Your task to perform on an android device: make emails show in primary in the gmail app Image 0: 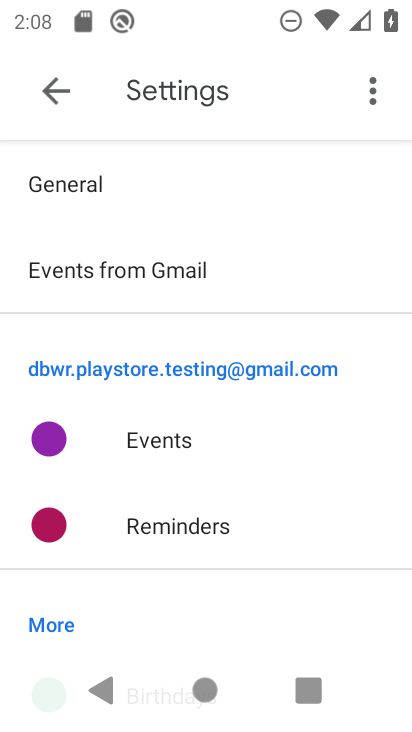
Step 0: press home button
Your task to perform on an android device: make emails show in primary in the gmail app Image 1: 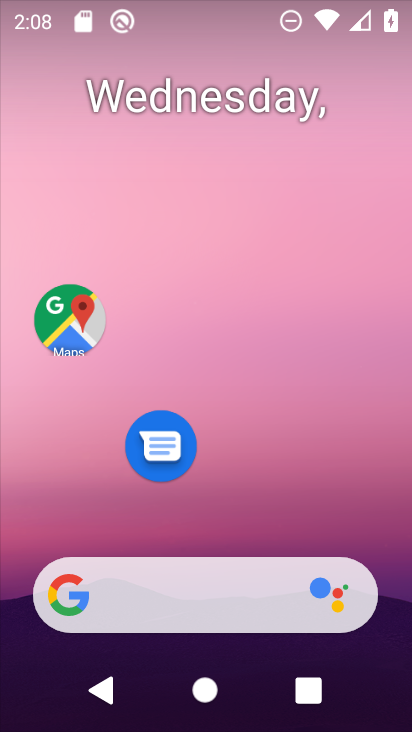
Step 1: drag from (310, 478) to (237, 16)
Your task to perform on an android device: make emails show in primary in the gmail app Image 2: 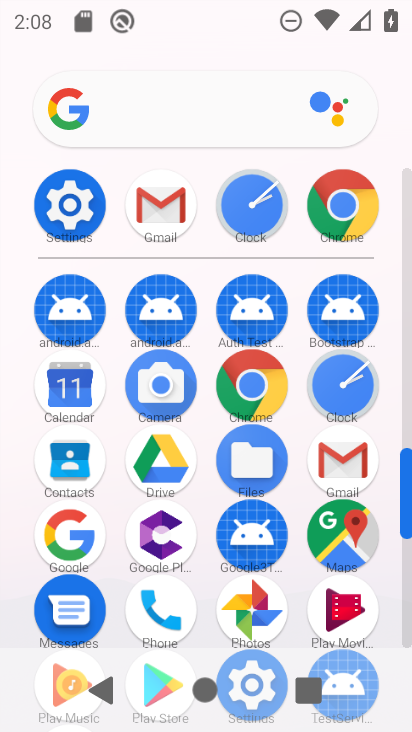
Step 2: click (341, 468)
Your task to perform on an android device: make emails show in primary in the gmail app Image 3: 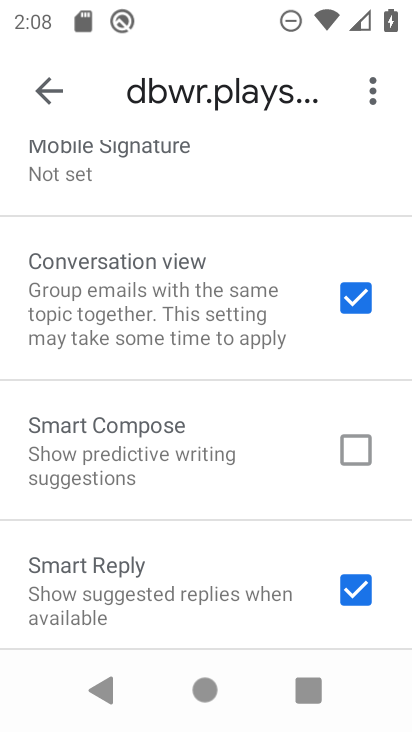
Step 3: click (61, 92)
Your task to perform on an android device: make emails show in primary in the gmail app Image 4: 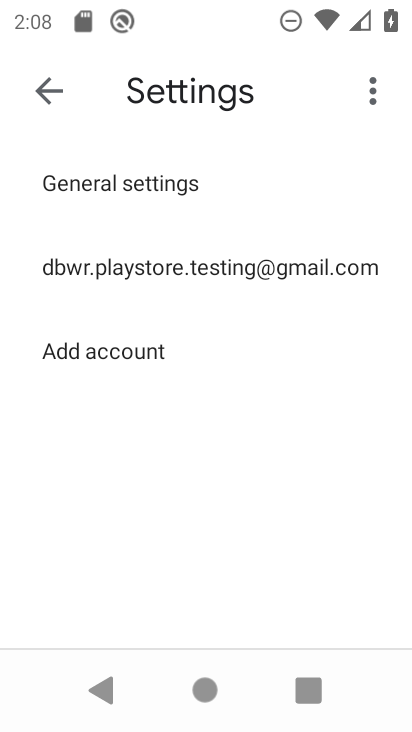
Step 4: click (61, 92)
Your task to perform on an android device: make emails show in primary in the gmail app Image 5: 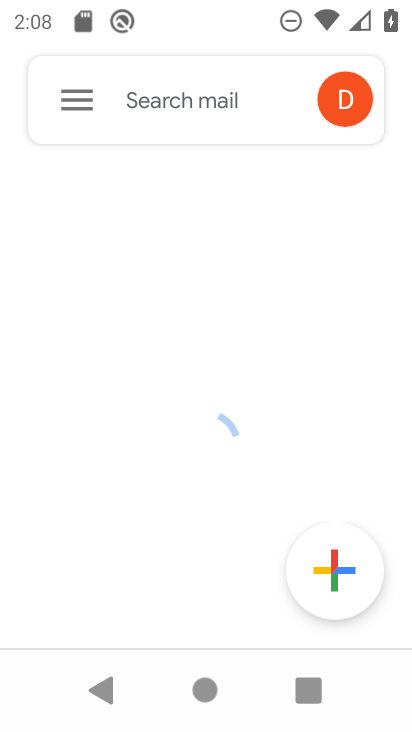
Step 5: click (61, 122)
Your task to perform on an android device: make emails show in primary in the gmail app Image 6: 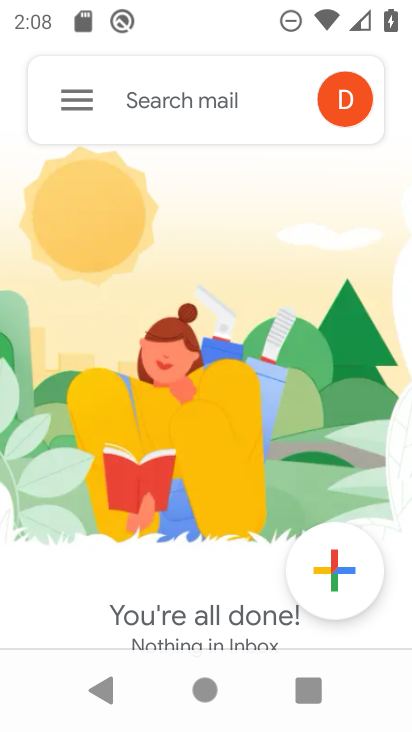
Step 6: click (75, 120)
Your task to perform on an android device: make emails show in primary in the gmail app Image 7: 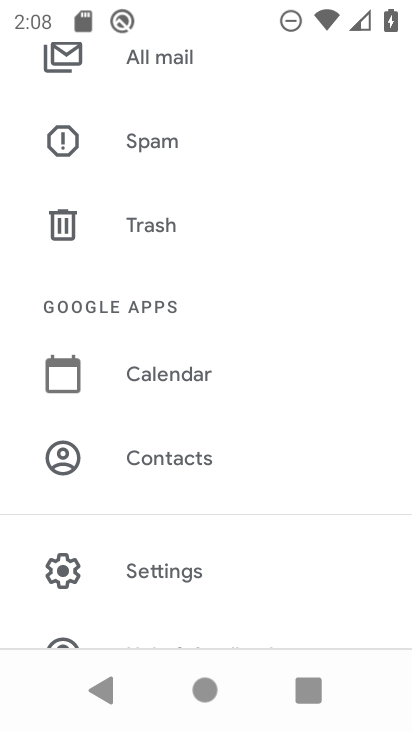
Step 7: click (168, 573)
Your task to perform on an android device: make emails show in primary in the gmail app Image 8: 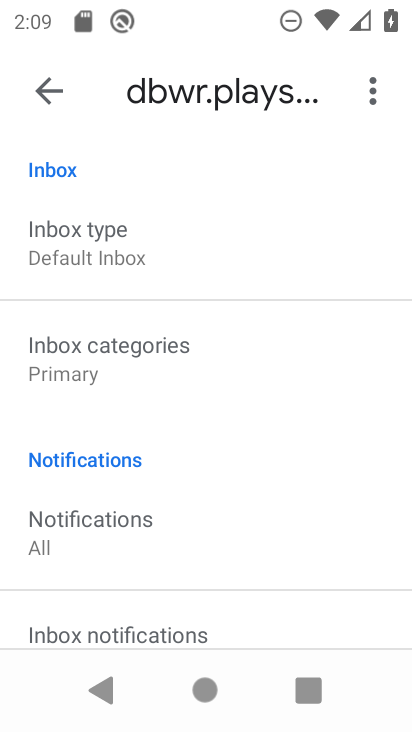
Step 8: click (129, 263)
Your task to perform on an android device: make emails show in primary in the gmail app Image 9: 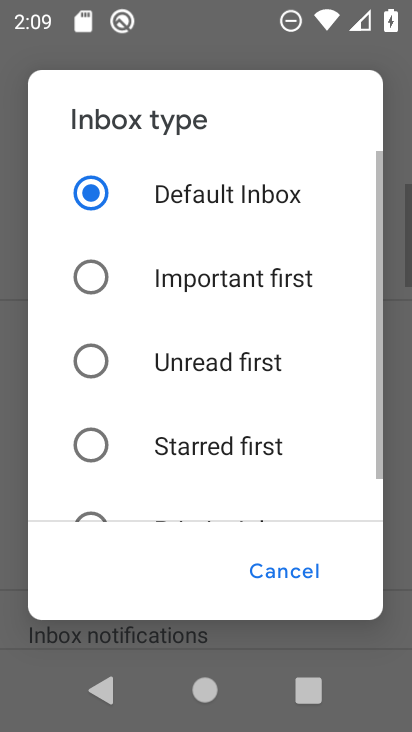
Step 9: drag from (135, 470) to (131, 305)
Your task to perform on an android device: make emails show in primary in the gmail app Image 10: 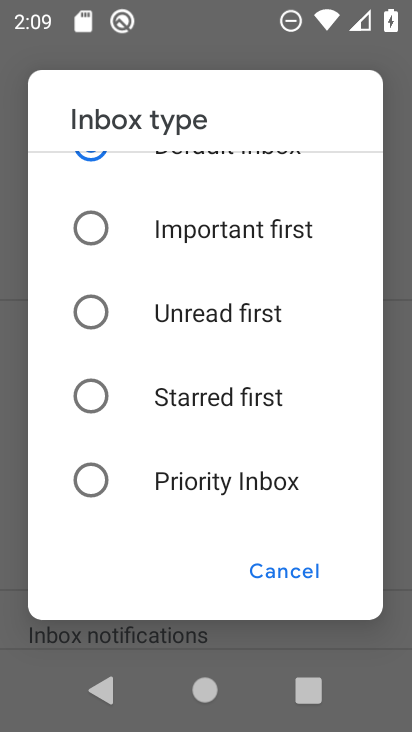
Step 10: click (146, 494)
Your task to perform on an android device: make emails show in primary in the gmail app Image 11: 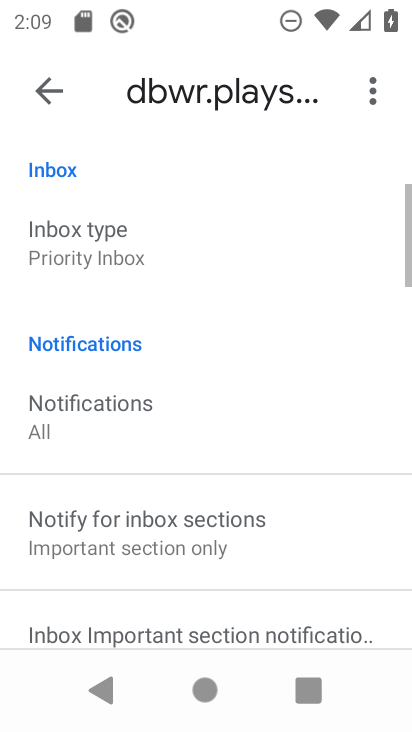
Step 11: task complete